Your task to perform on an android device: turn on bluetooth scan Image 0: 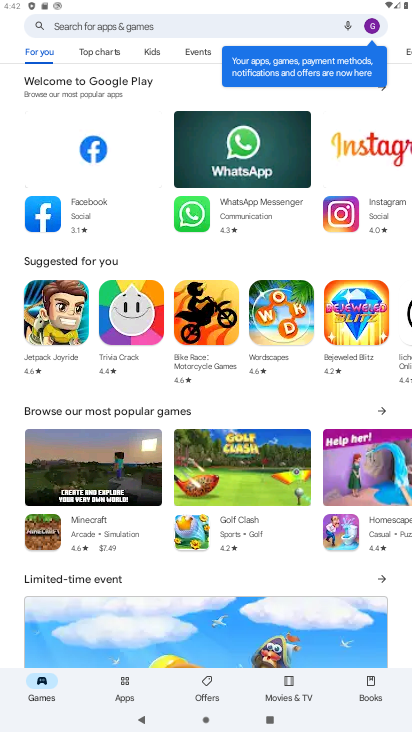
Step 0: press home button
Your task to perform on an android device: turn on bluetooth scan Image 1: 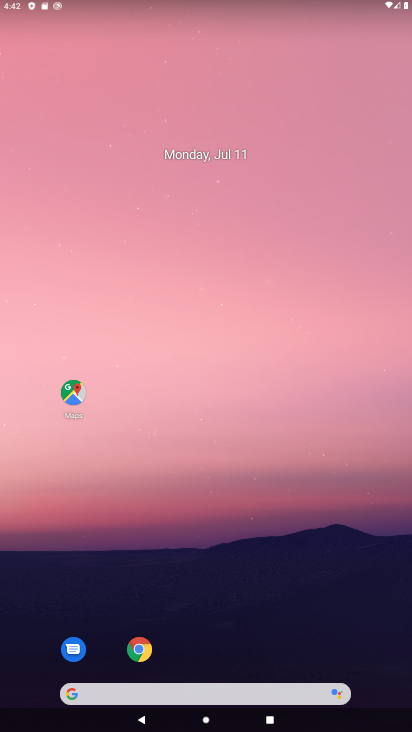
Step 1: drag from (325, 640) to (307, 31)
Your task to perform on an android device: turn on bluetooth scan Image 2: 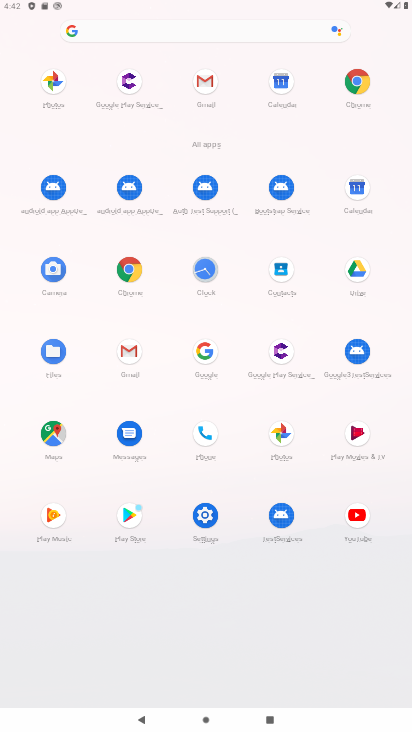
Step 2: click (197, 522)
Your task to perform on an android device: turn on bluetooth scan Image 3: 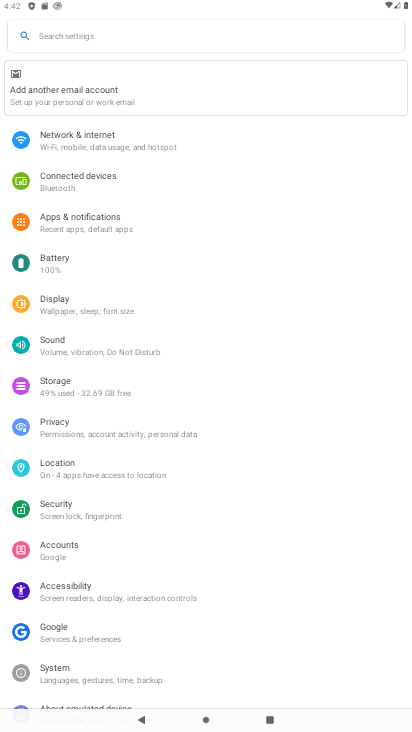
Step 3: click (77, 466)
Your task to perform on an android device: turn on bluetooth scan Image 4: 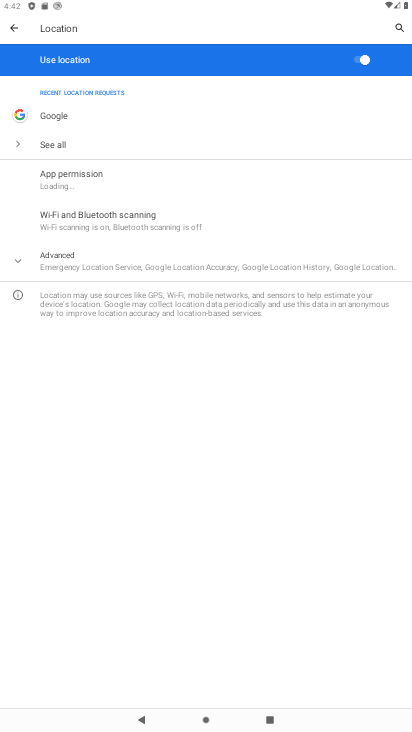
Step 4: click (97, 230)
Your task to perform on an android device: turn on bluetooth scan Image 5: 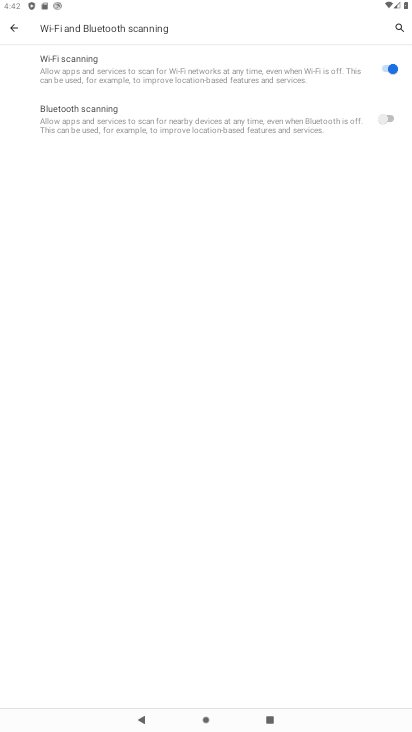
Step 5: click (375, 121)
Your task to perform on an android device: turn on bluetooth scan Image 6: 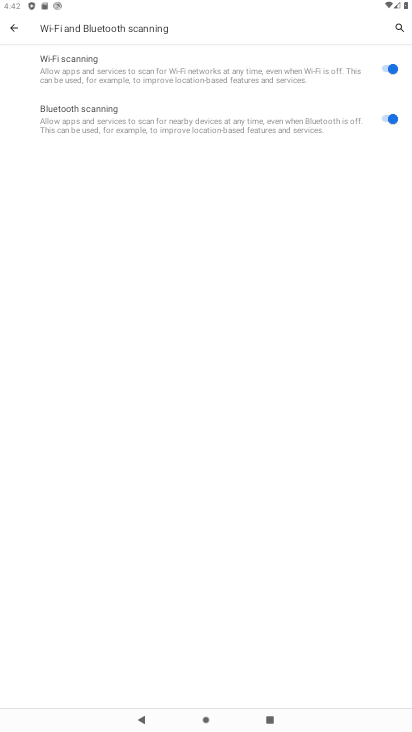
Step 6: task complete